Your task to perform on an android device: Go to accessibility settings Image 0: 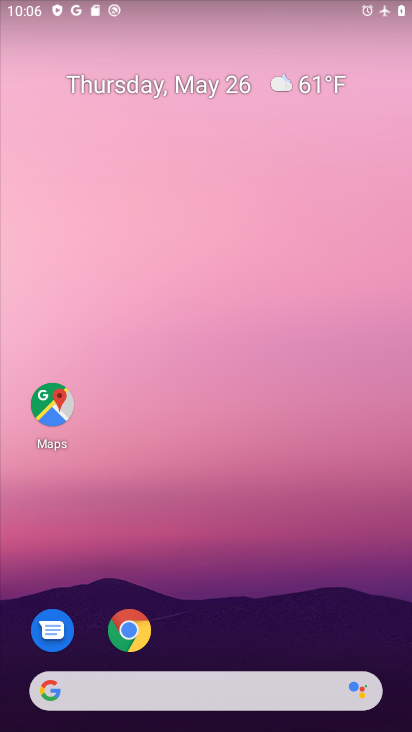
Step 0: drag from (212, 651) to (151, 228)
Your task to perform on an android device: Go to accessibility settings Image 1: 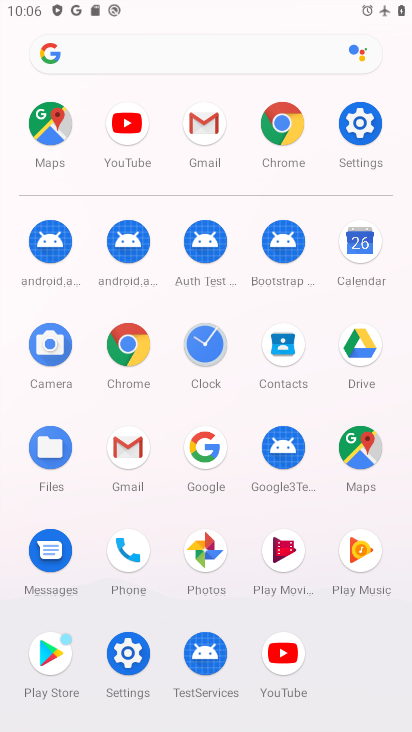
Step 1: click (361, 123)
Your task to perform on an android device: Go to accessibility settings Image 2: 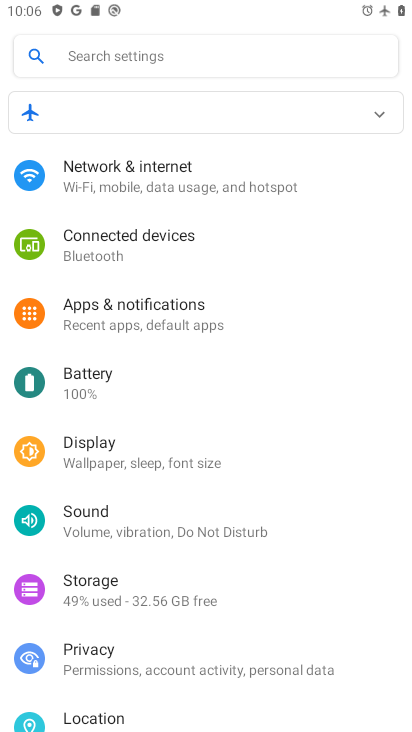
Step 2: drag from (153, 552) to (116, 127)
Your task to perform on an android device: Go to accessibility settings Image 3: 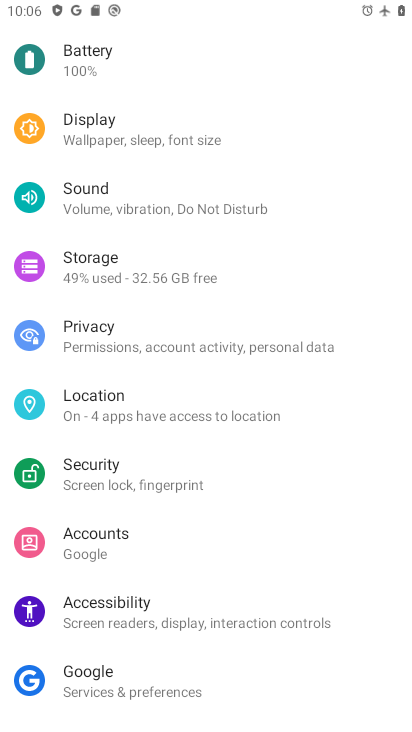
Step 3: click (116, 573)
Your task to perform on an android device: Go to accessibility settings Image 4: 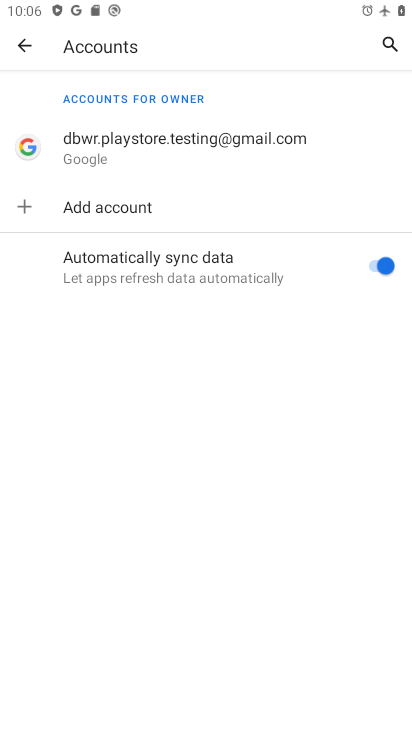
Step 4: click (27, 36)
Your task to perform on an android device: Go to accessibility settings Image 5: 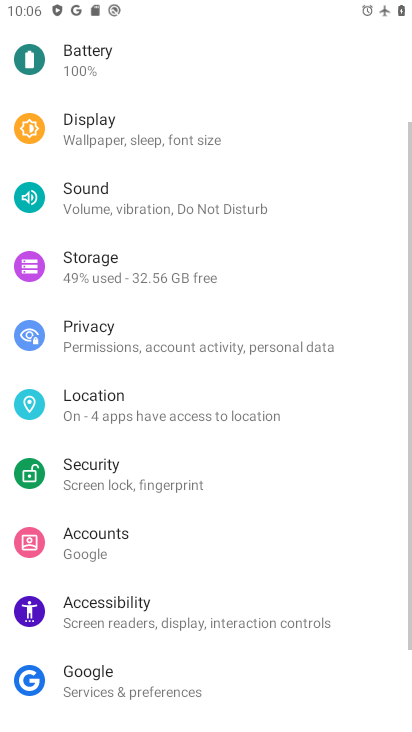
Step 5: click (81, 608)
Your task to perform on an android device: Go to accessibility settings Image 6: 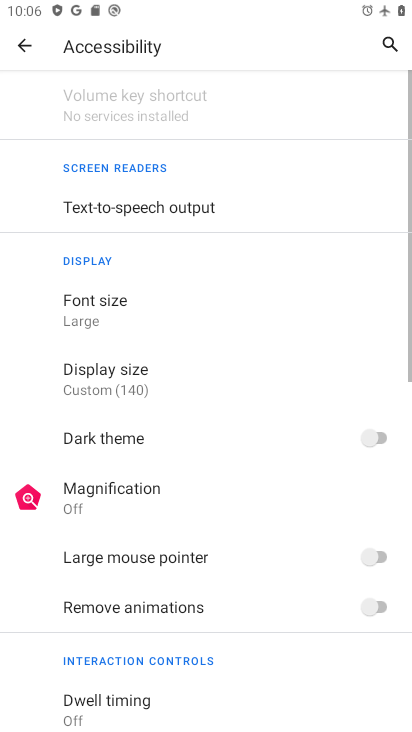
Step 6: task complete